Your task to perform on an android device: open app "Nova Launcher" Image 0: 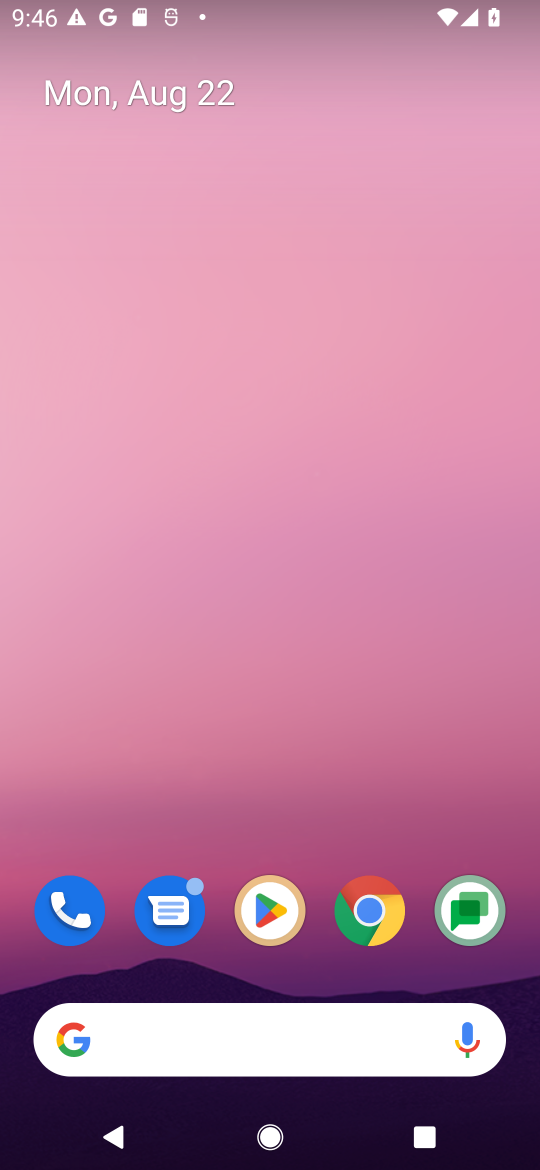
Step 0: click (263, 908)
Your task to perform on an android device: open app "Nova Launcher" Image 1: 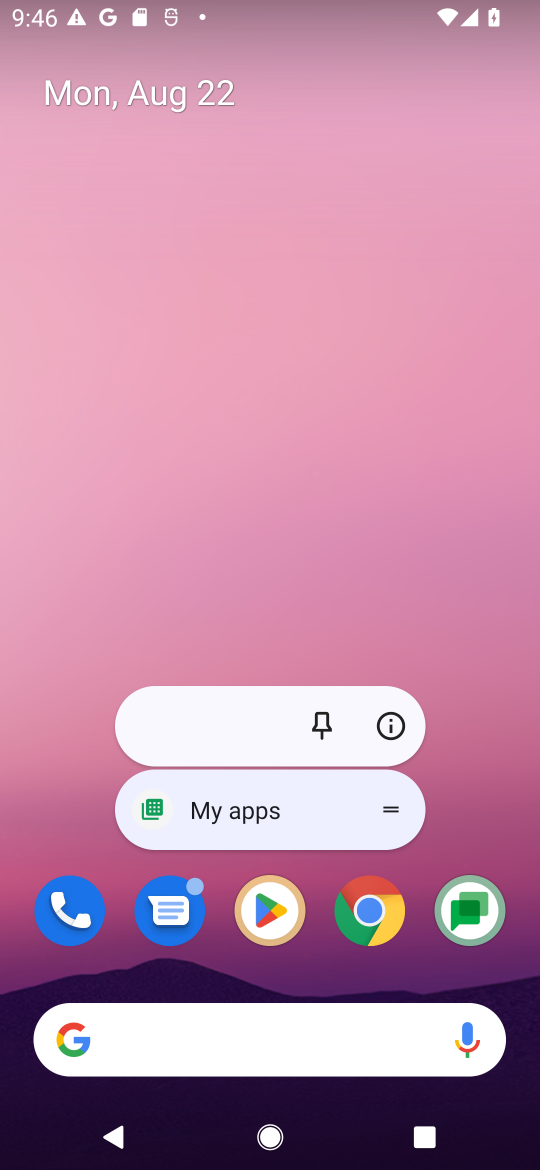
Step 1: click (263, 908)
Your task to perform on an android device: open app "Nova Launcher" Image 2: 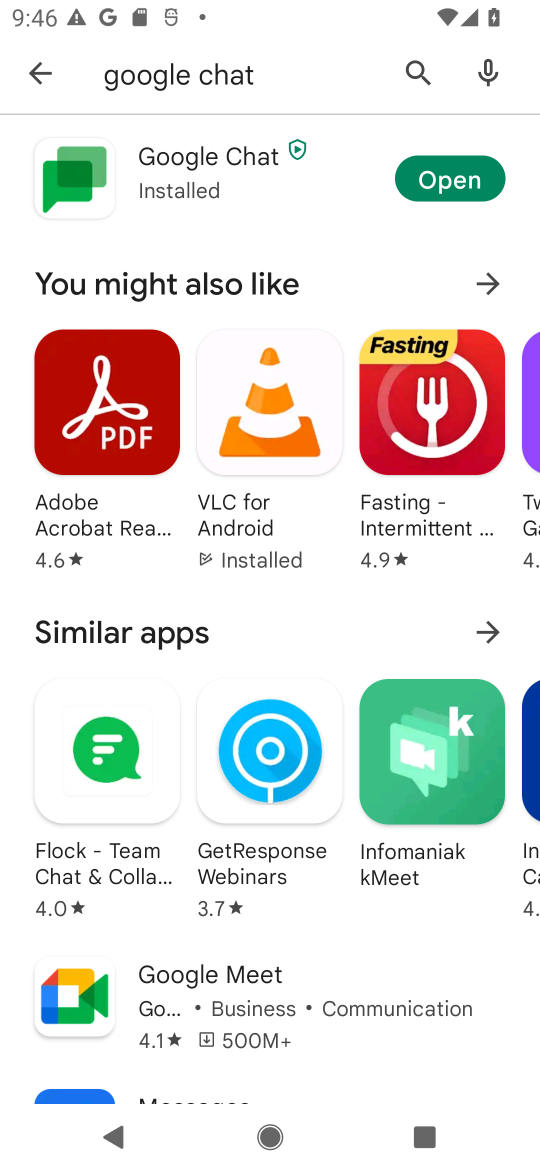
Step 2: click (417, 74)
Your task to perform on an android device: open app "Nova Launcher" Image 3: 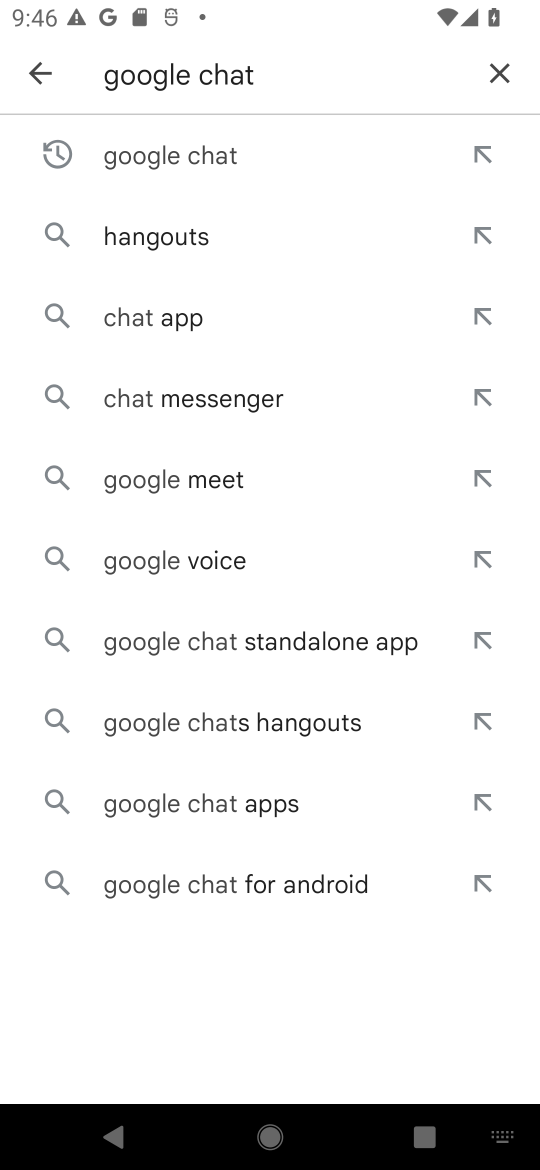
Step 3: click (487, 77)
Your task to perform on an android device: open app "Nova Launcher" Image 4: 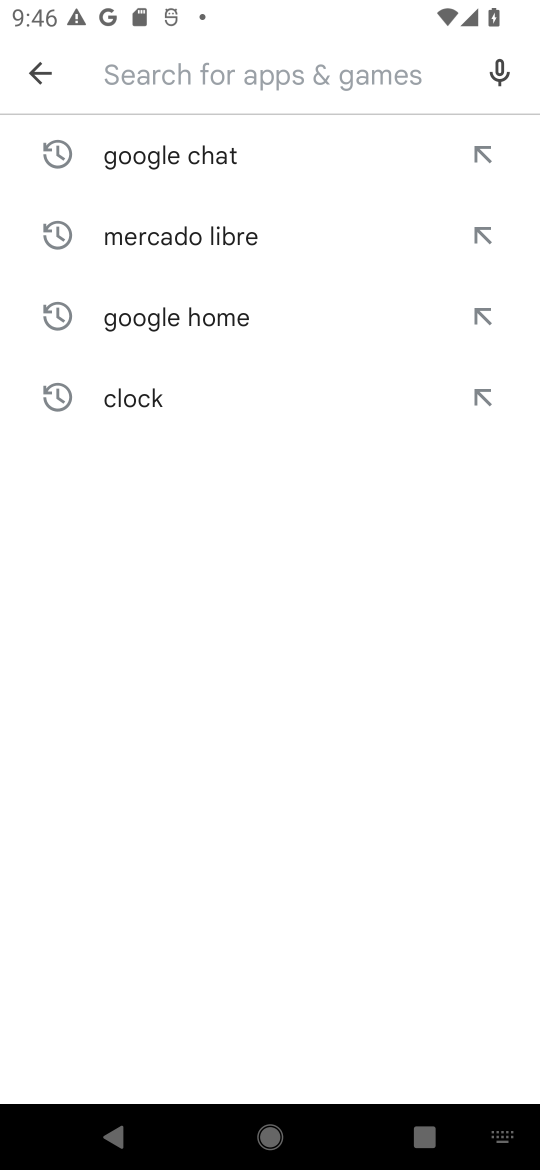
Step 4: type "Nova Launcher"
Your task to perform on an android device: open app "Nova Launcher" Image 5: 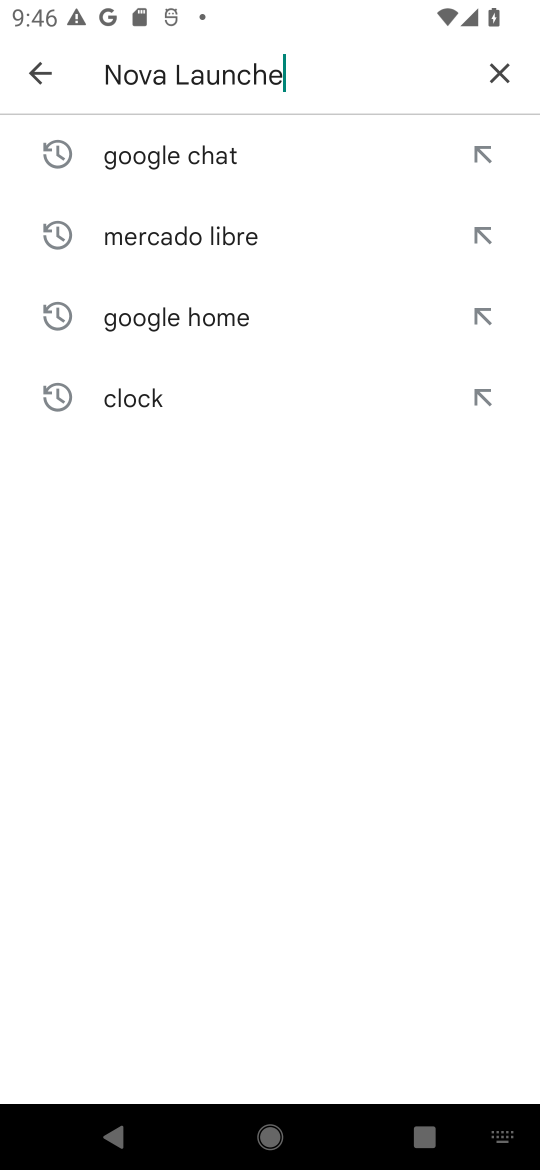
Step 5: type ""
Your task to perform on an android device: open app "Nova Launcher" Image 6: 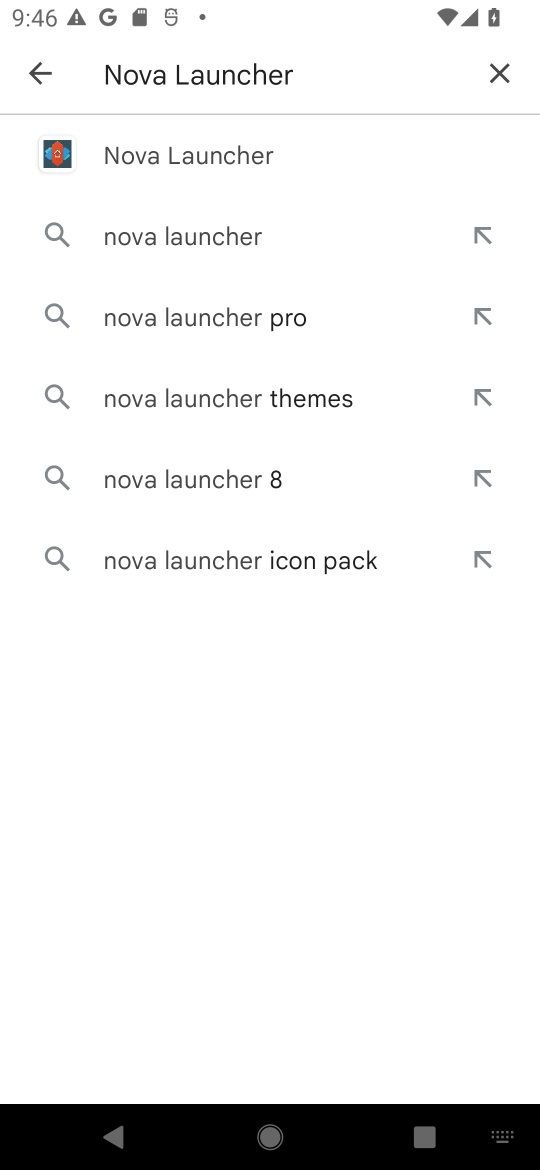
Step 6: click (307, 160)
Your task to perform on an android device: open app "Nova Launcher" Image 7: 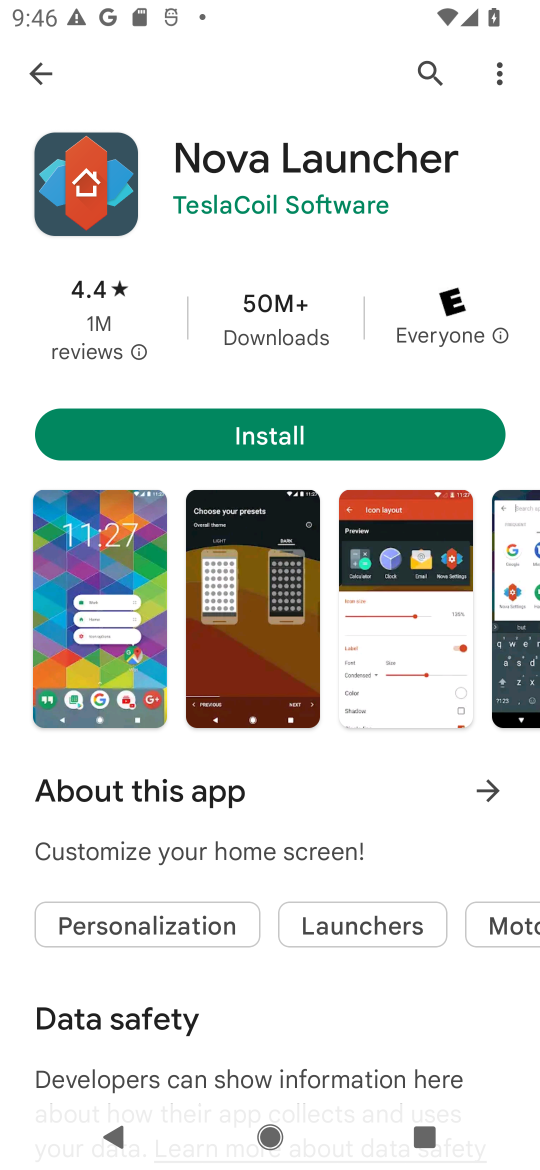
Step 7: task complete